Your task to perform on an android device: see tabs open on other devices in the chrome app Image 0: 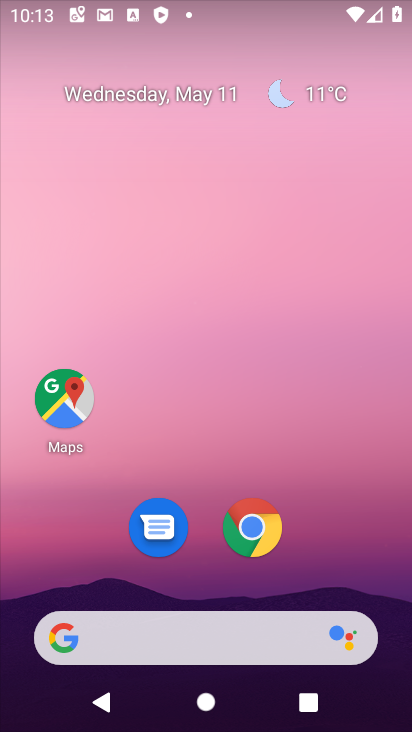
Step 0: drag from (351, 516) to (354, 80)
Your task to perform on an android device: see tabs open on other devices in the chrome app Image 1: 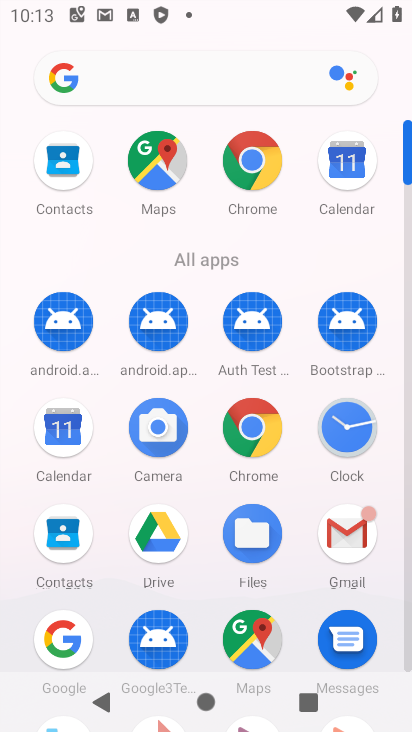
Step 1: click (260, 168)
Your task to perform on an android device: see tabs open on other devices in the chrome app Image 2: 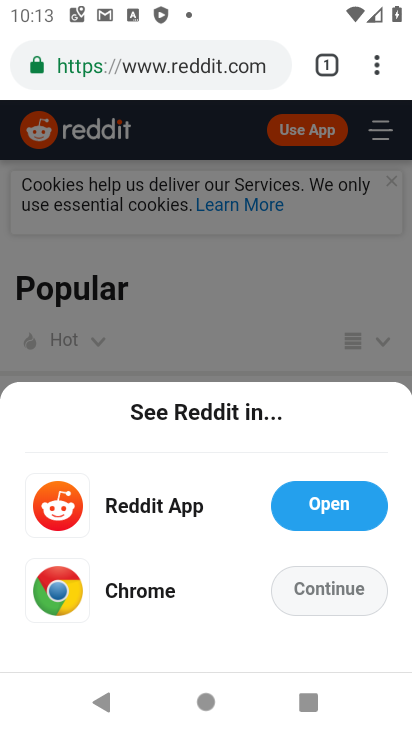
Step 2: task complete